Your task to perform on an android device: toggle priority inbox in the gmail app Image 0: 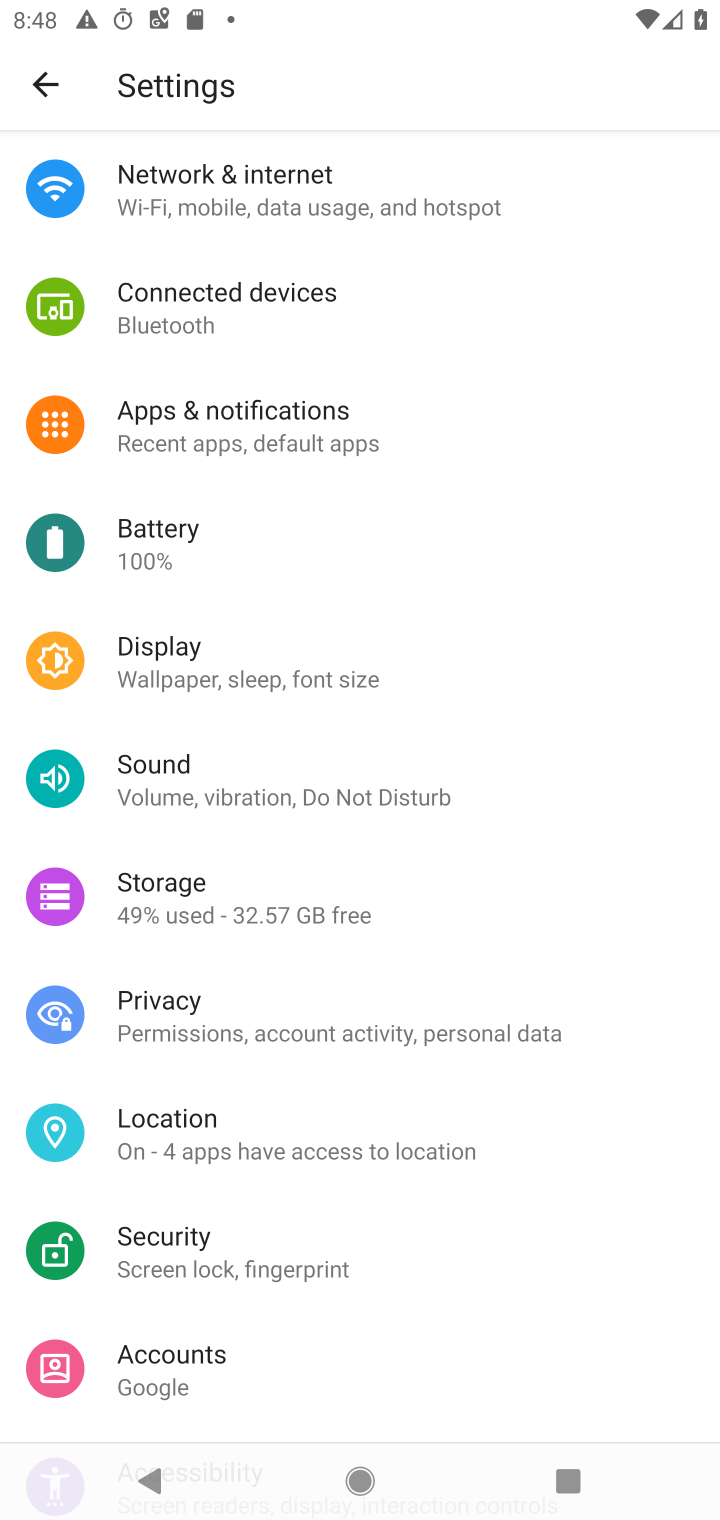
Step 0: press home button
Your task to perform on an android device: toggle priority inbox in the gmail app Image 1: 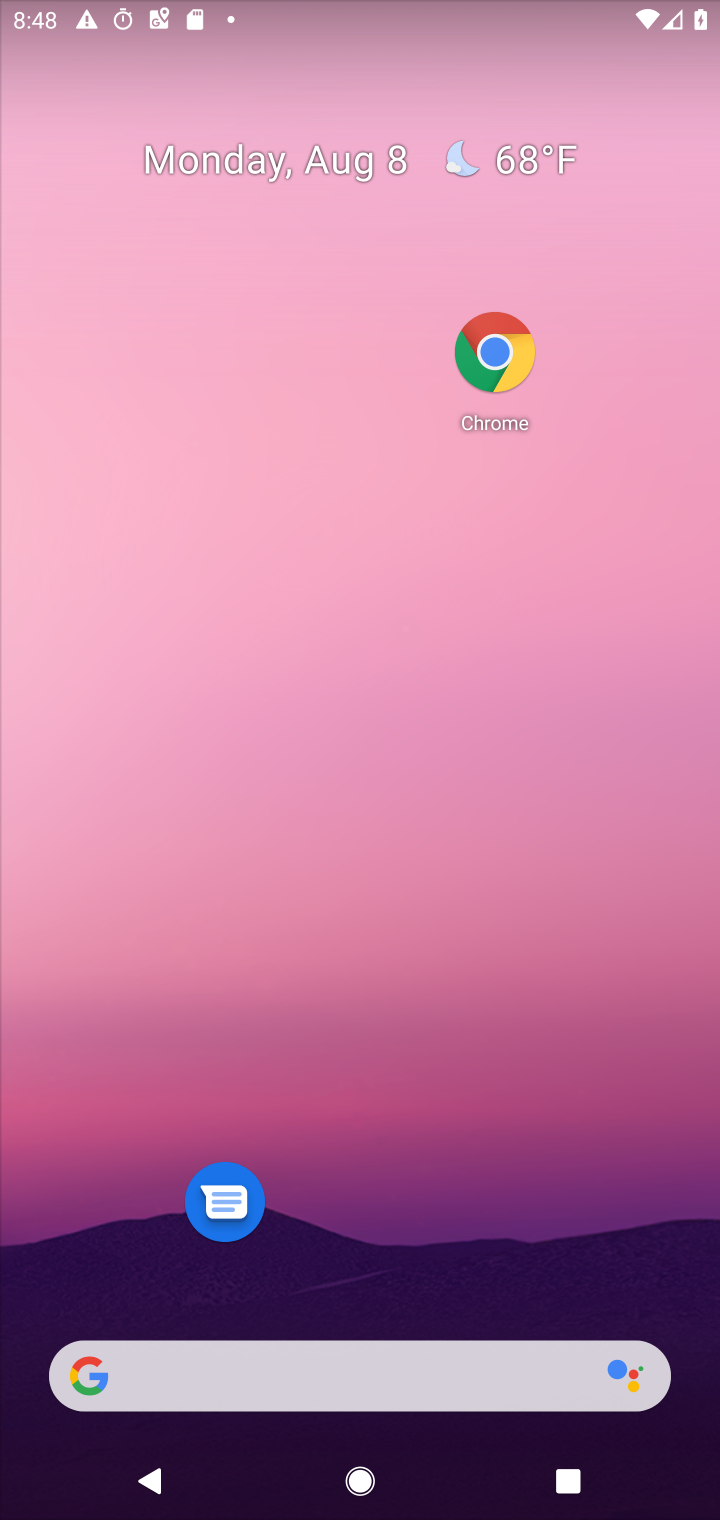
Step 1: drag from (509, 1286) to (568, 389)
Your task to perform on an android device: toggle priority inbox in the gmail app Image 2: 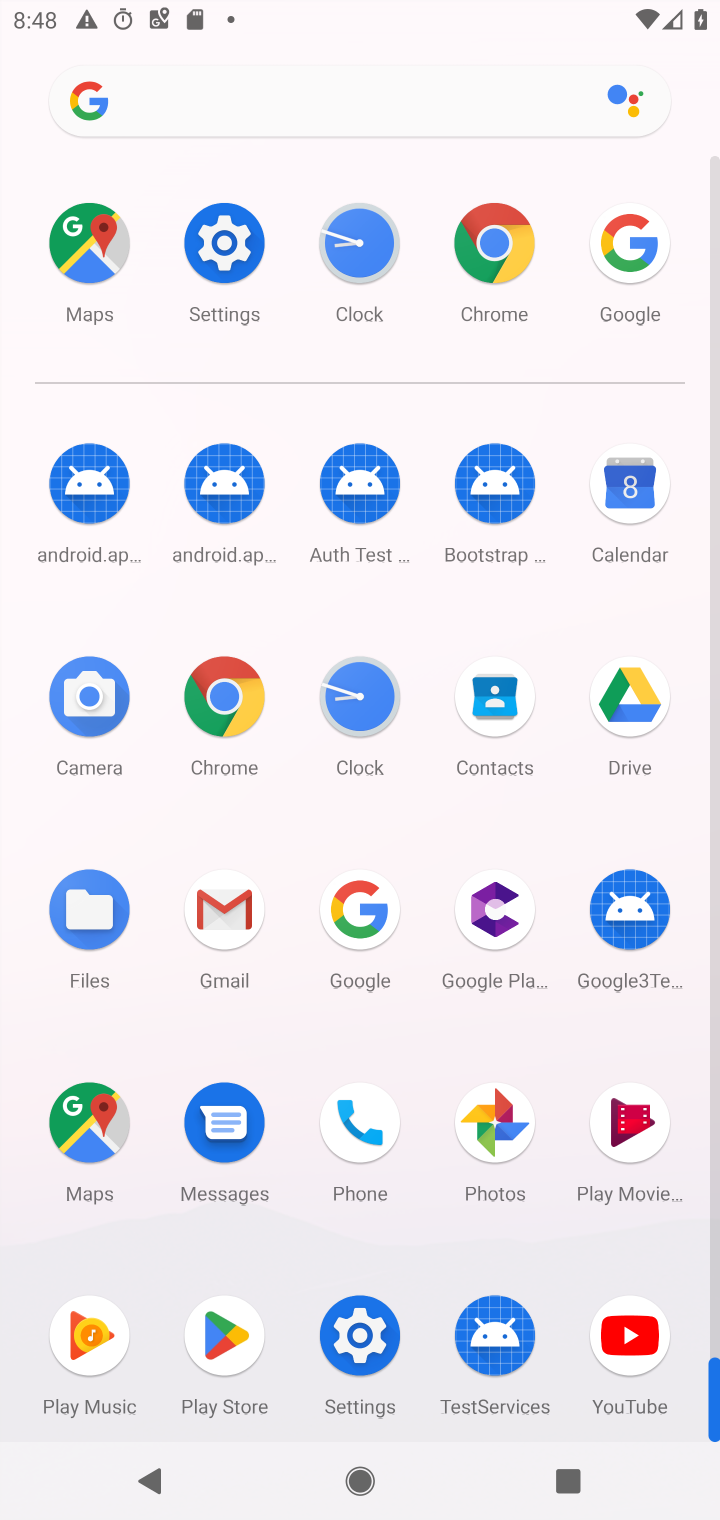
Step 2: click (235, 917)
Your task to perform on an android device: toggle priority inbox in the gmail app Image 3: 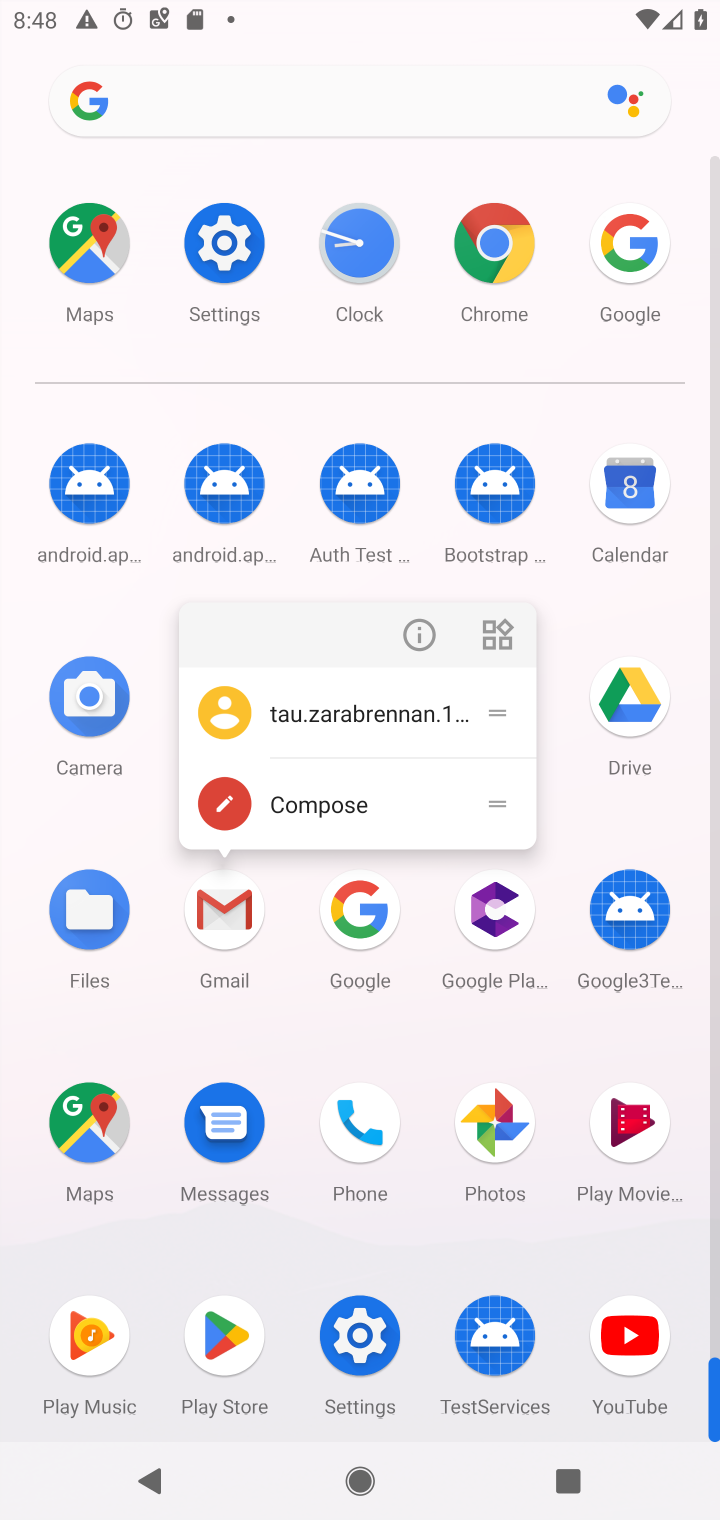
Step 3: click (207, 913)
Your task to perform on an android device: toggle priority inbox in the gmail app Image 4: 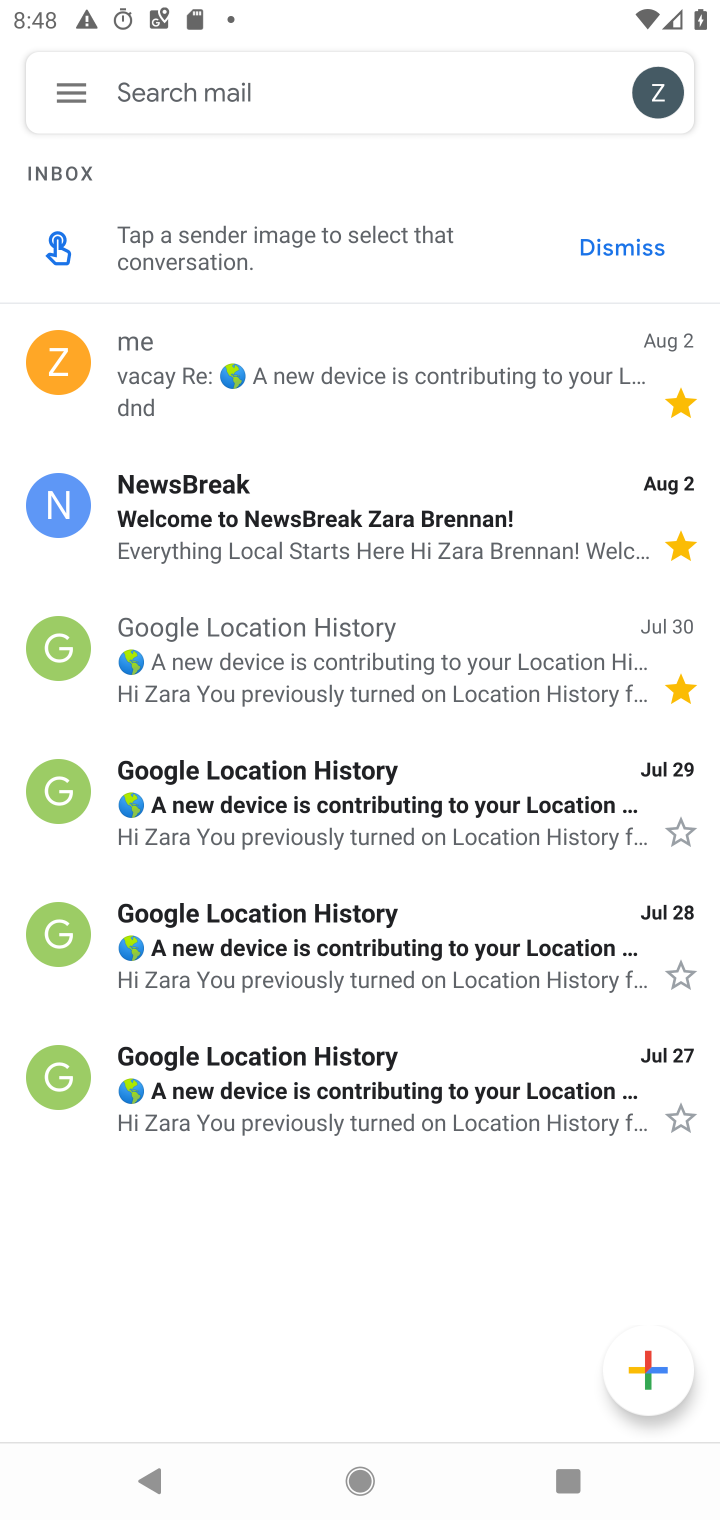
Step 4: click (76, 86)
Your task to perform on an android device: toggle priority inbox in the gmail app Image 5: 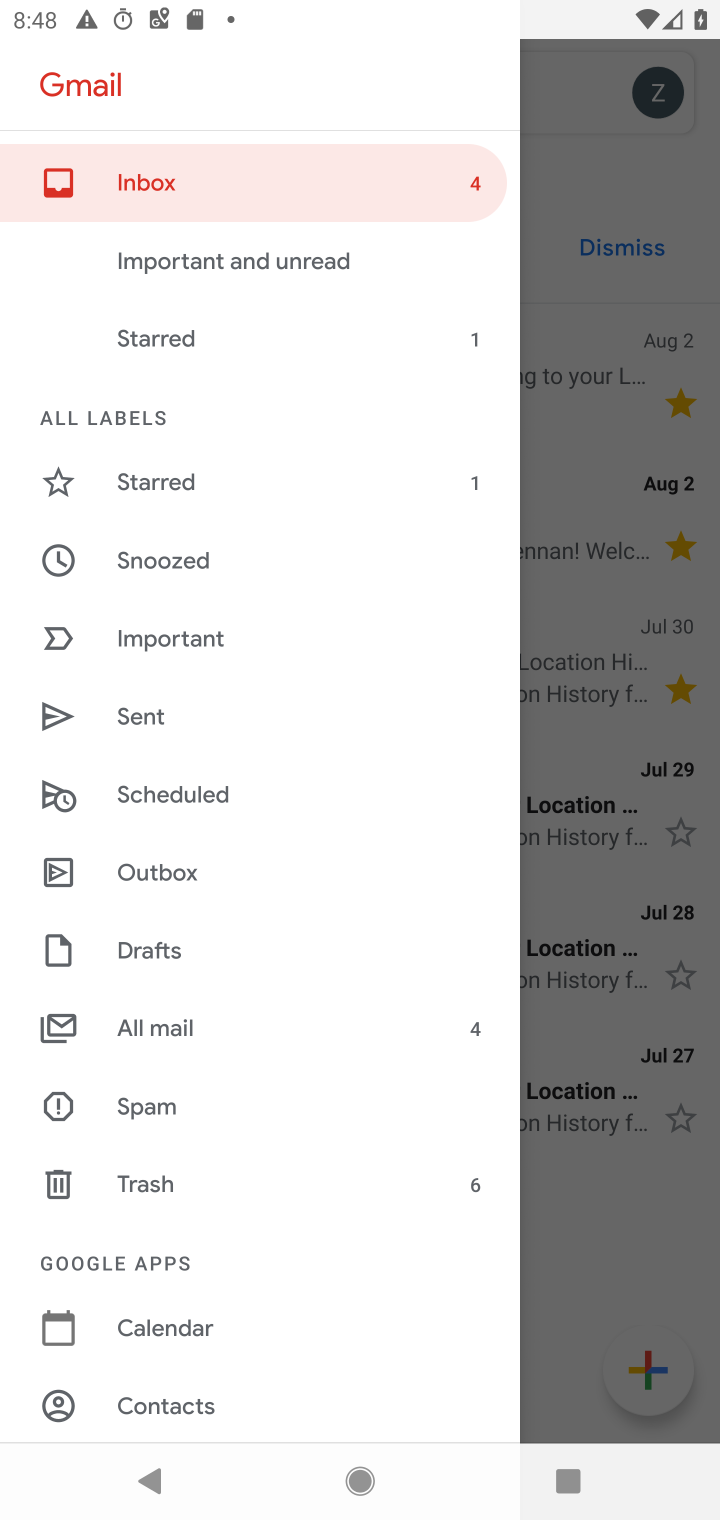
Step 5: drag from (243, 1318) to (344, 286)
Your task to perform on an android device: toggle priority inbox in the gmail app Image 6: 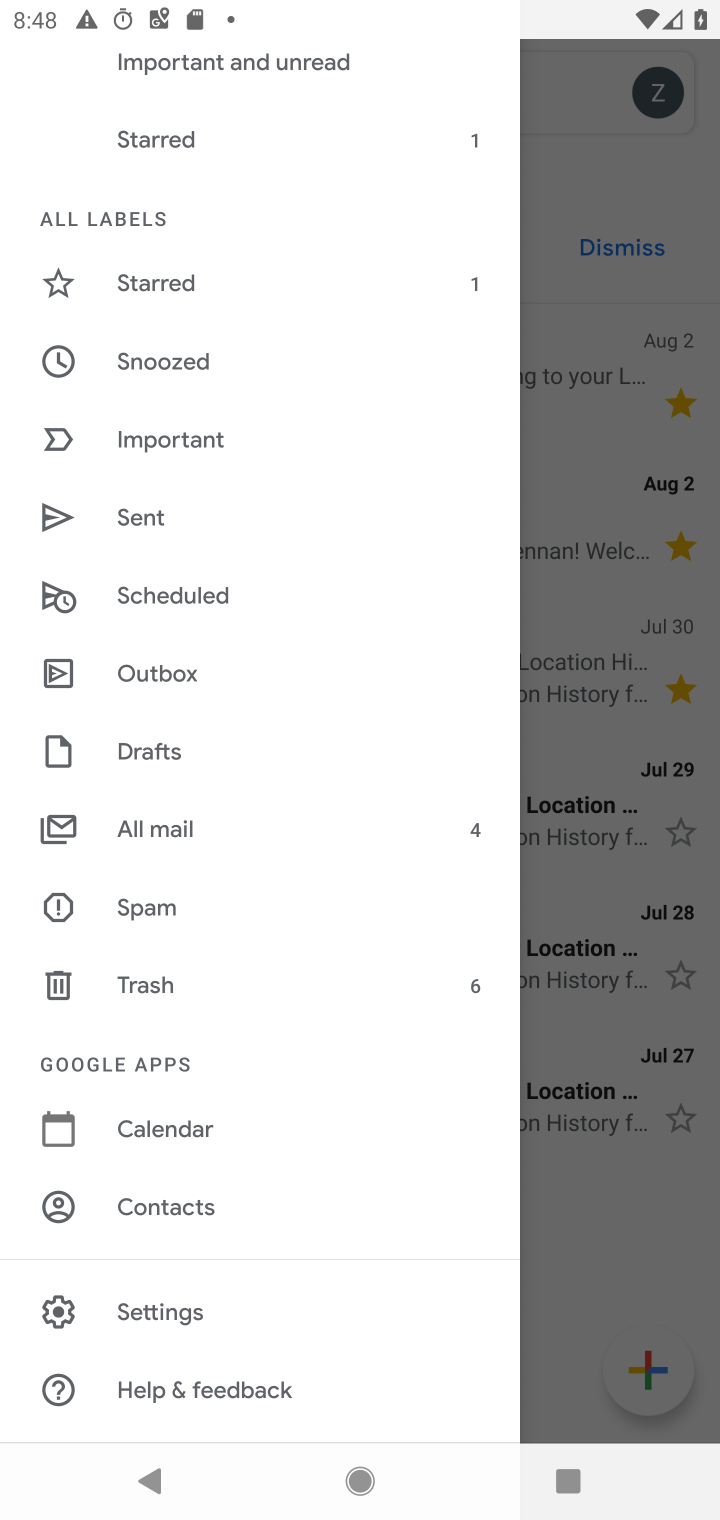
Step 6: click (141, 1302)
Your task to perform on an android device: toggle priority inbox in the gmail app Image 7: 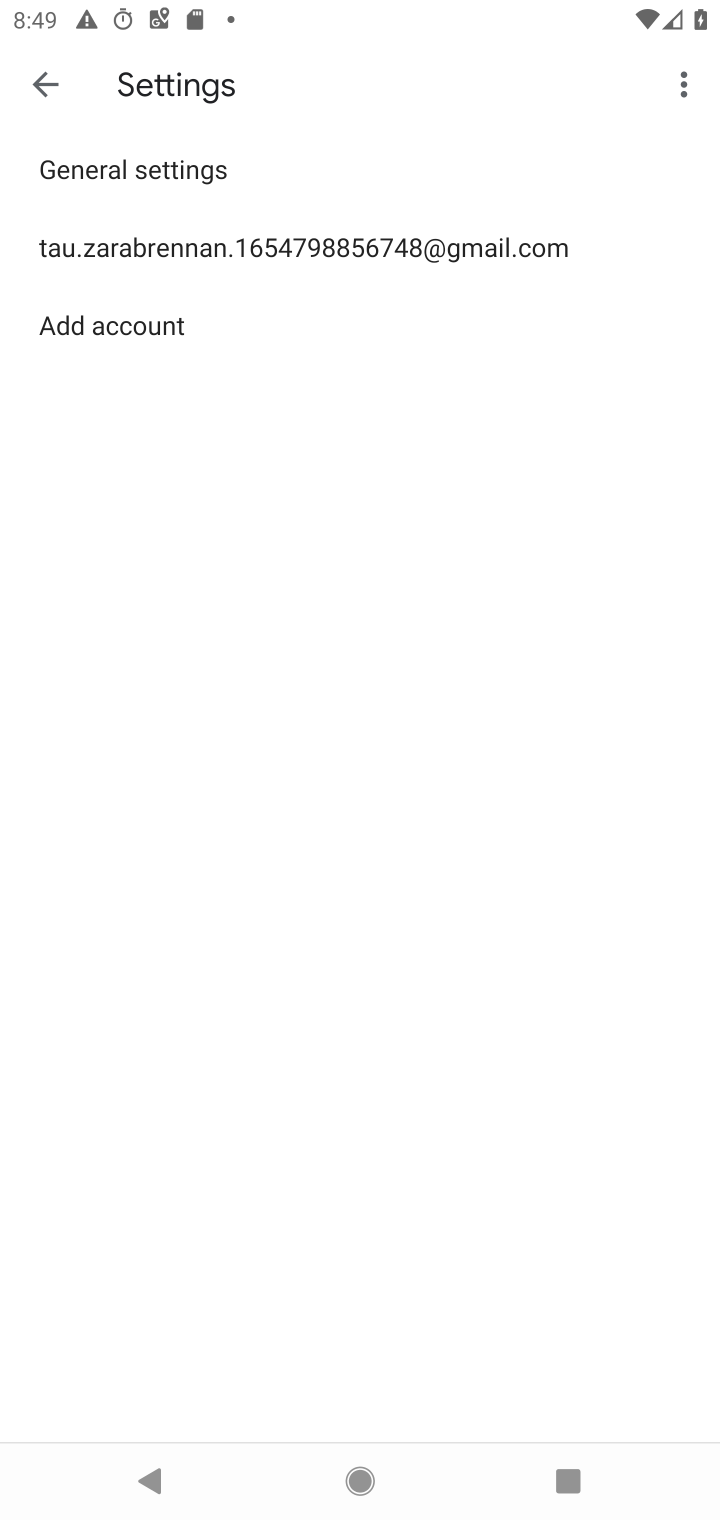
Step 7: click (332, 265)
Your task to perform on an android device: toggle priority inbox in the gmail app Image 8: 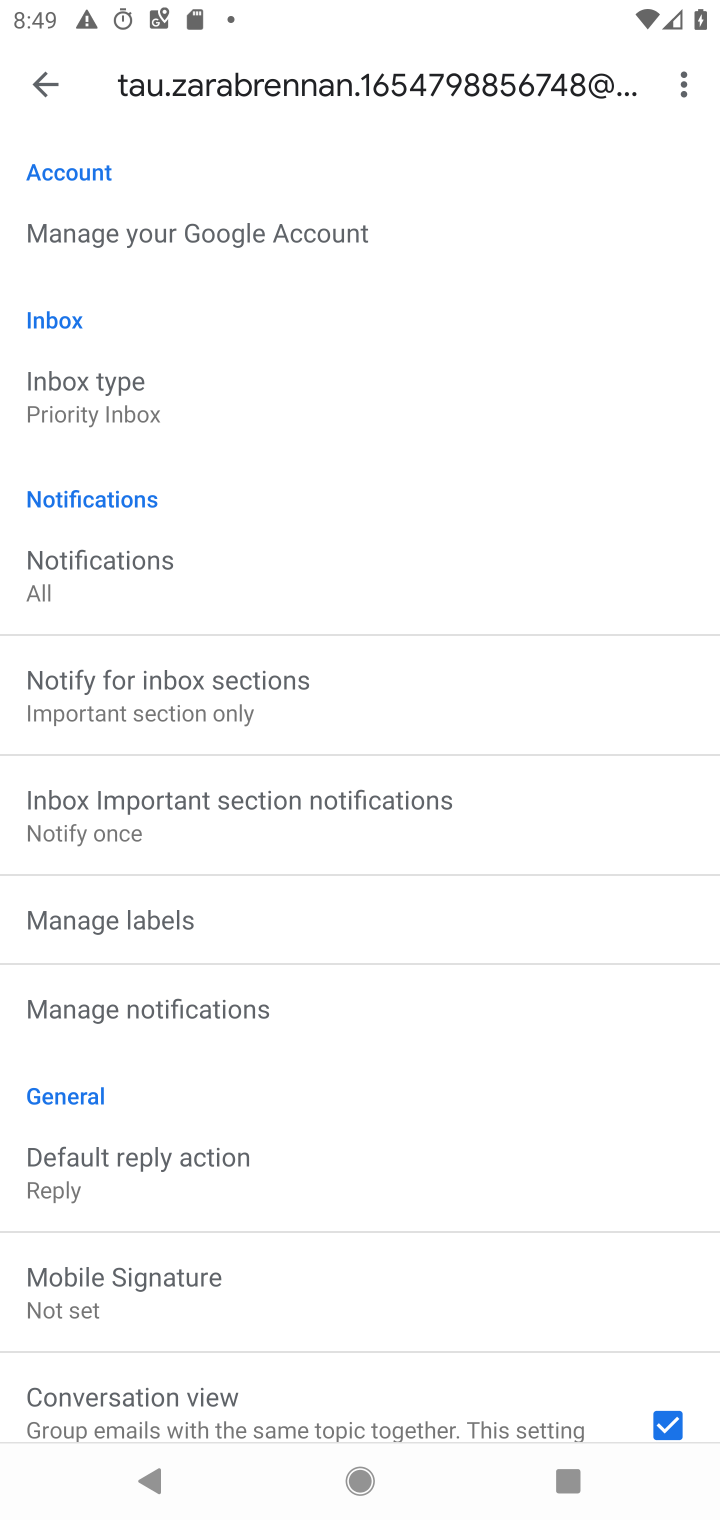
Step 8: click (106, 406)
Your task to perform on an android device: toggle priority inbox in the gmail app Image 9: 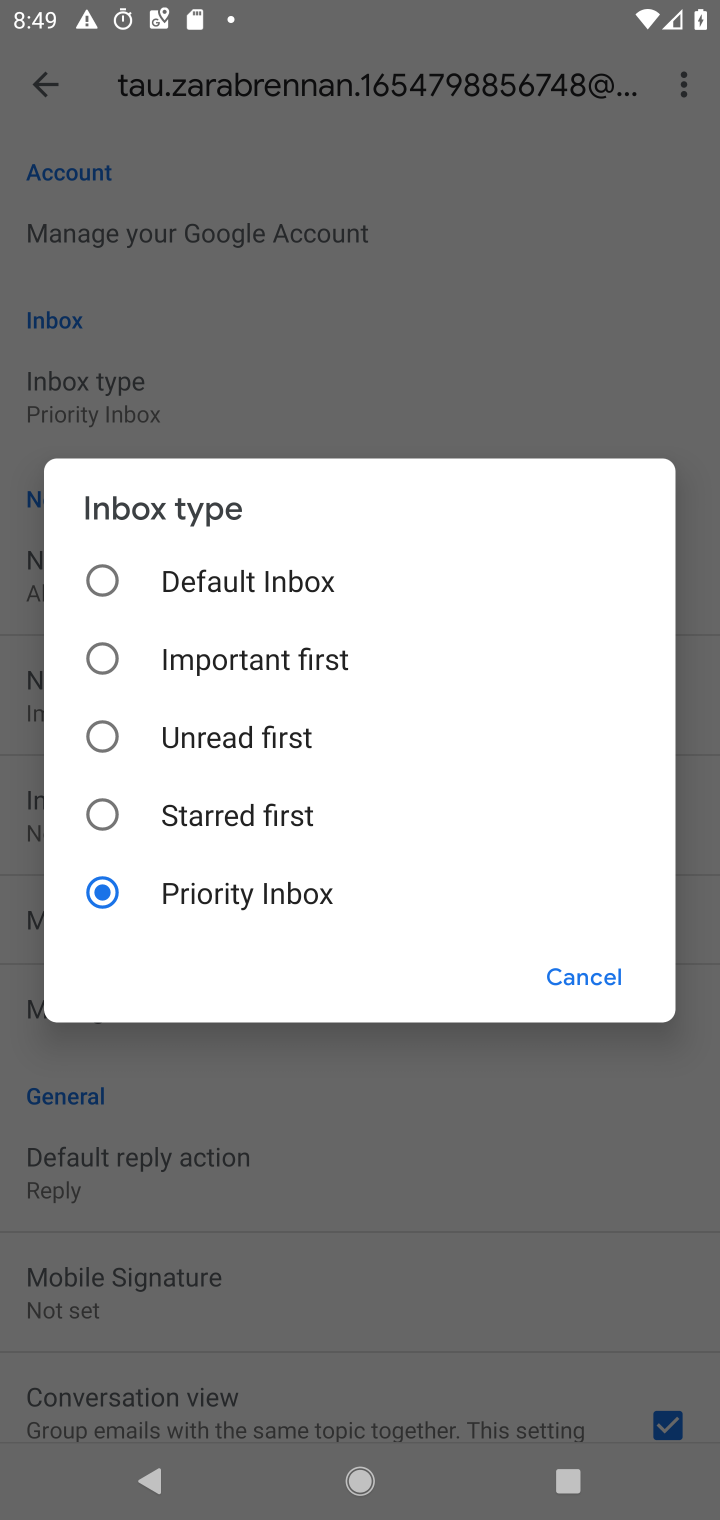
Step 9: click (108, 593)
Your task to perform on an android device: toggle priority inbox in the gmail app Image 10: 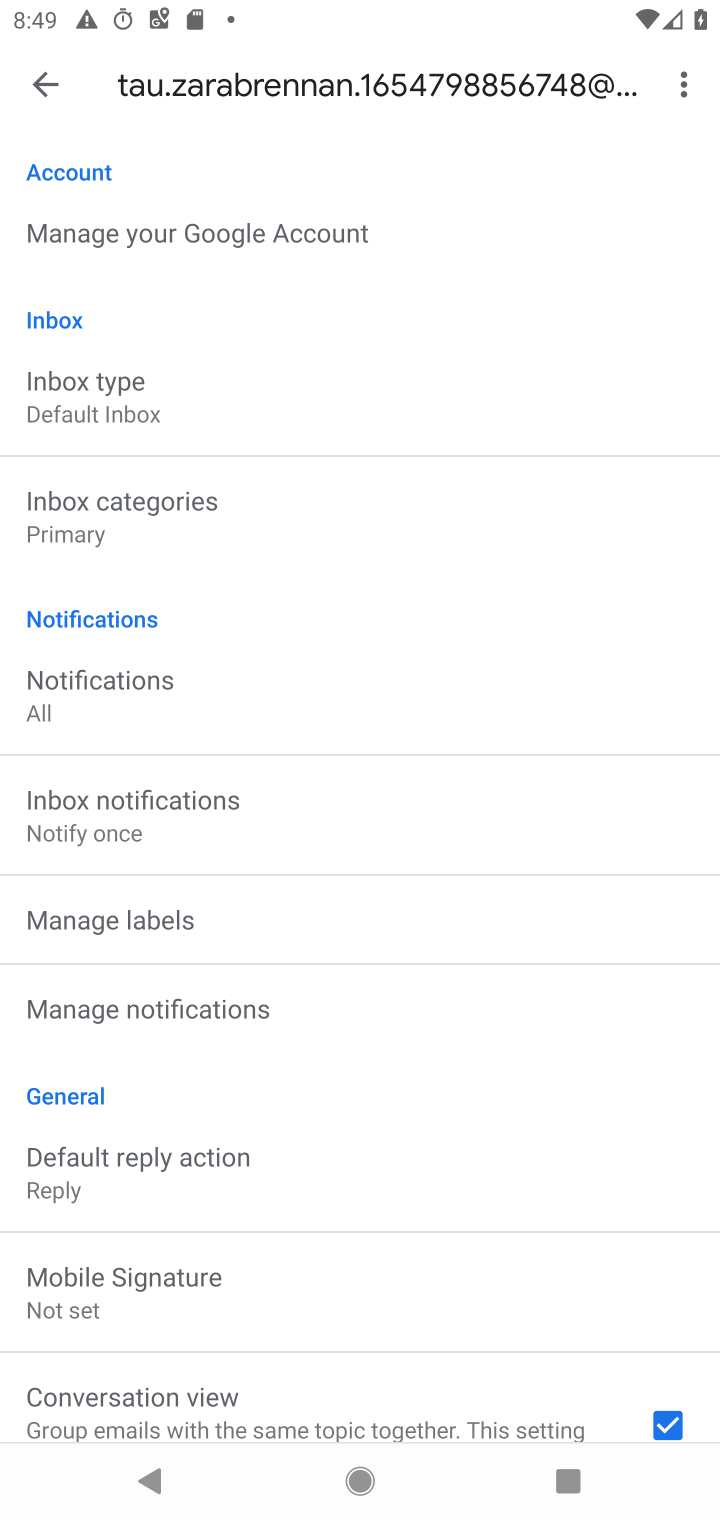
Step 10: task complete